Your task to perform on an android device: Go to sound settings Image 0: 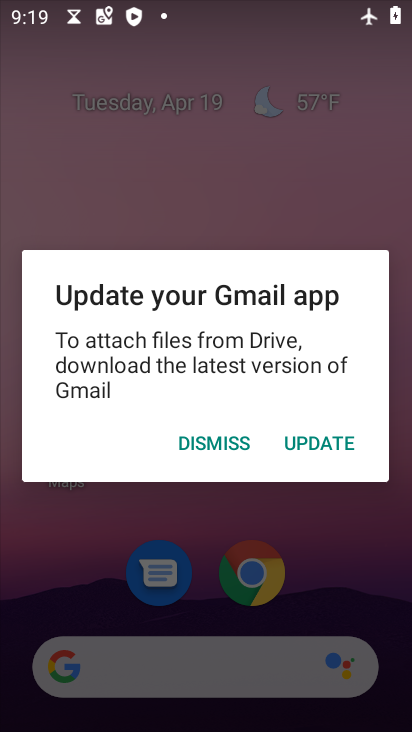
Step 0: press home button
Your task to perform on an android device: Go to sound settings Image 1: 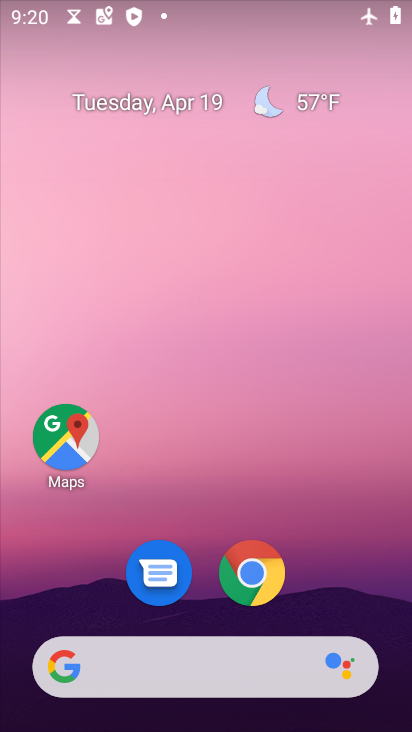
Step 1: drag from (323, 559) to (313, 153)
Your task to perform on an android device: Go to sound settings Image 2: 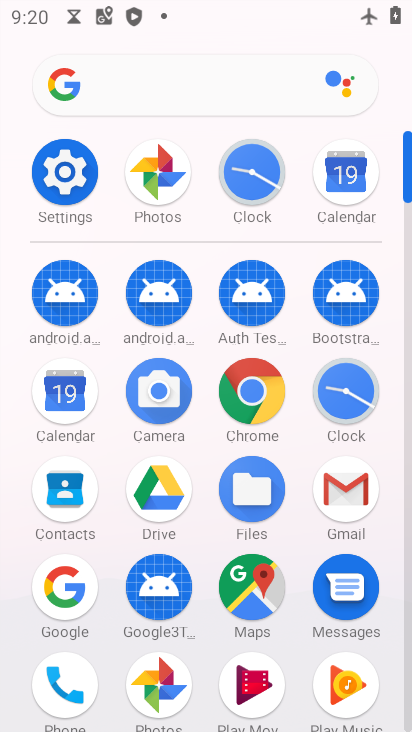
Step 2: click (63, 173)
Your task to perform on an android device: Go to sound settings Image 3: 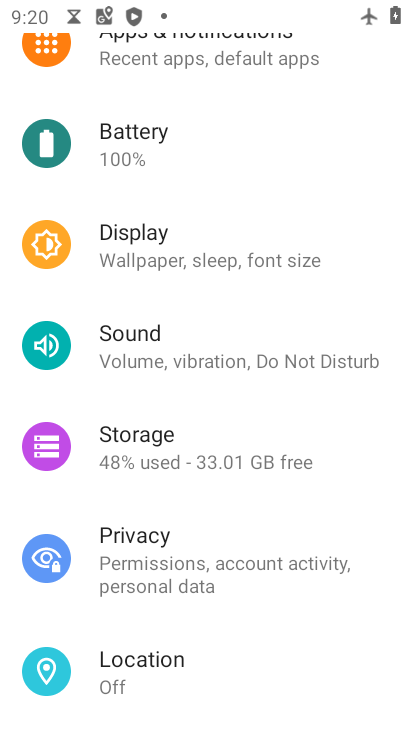
Step 3: drag from (248, 645) to (261, 157)
Your task to perform on an android device: Go to sound settings Image 4: 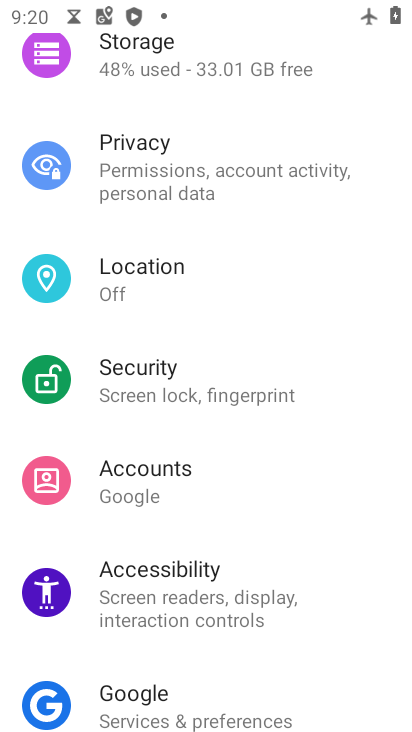
Step 4: drag from (299, 639) to (289, 208)
Your task to perform on an android device: Go to sound settings Image 5: 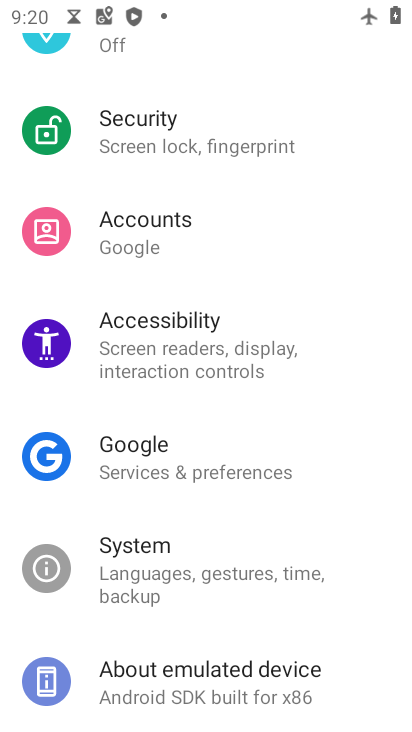
Step 5: drag from (301, 377) to (313, 698)
Your task to perform on an android device: Go to sound settings Image 6: 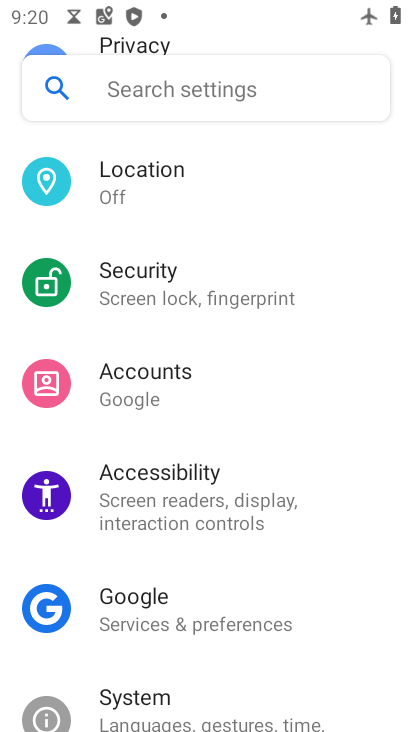
Step 6: drag from (271, 183) to (281, 644)
Your task to perform on an android device: Go to sound settings Image 7: 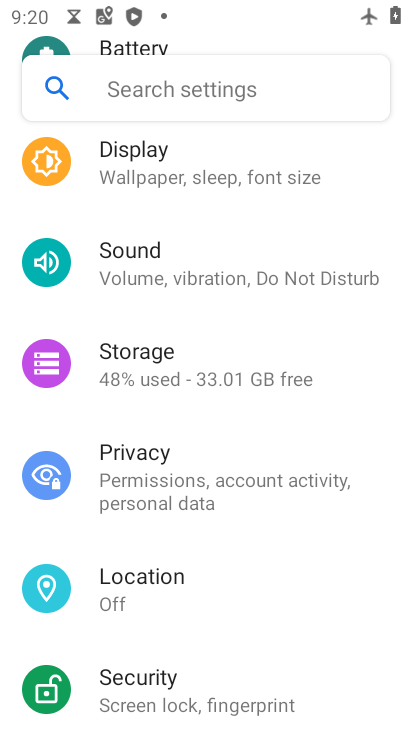
Step 7: click (243, 273)
Your task to perform on an android device: Go to sound settings Image 8: 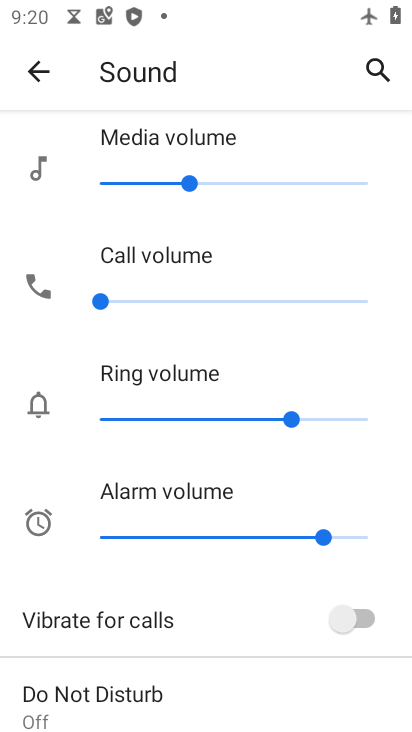
Step 8: task complete